Your task to perform on an android device: Play the last video I watched on Youtube Image 0: 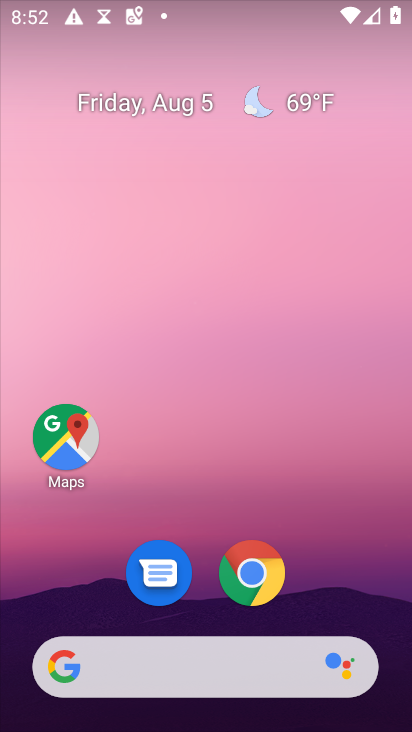
Step 0: drag from (213, 688) to (288, 124)
Your task to perform on an android device: Play the last video I watched on Youtube Image 1: 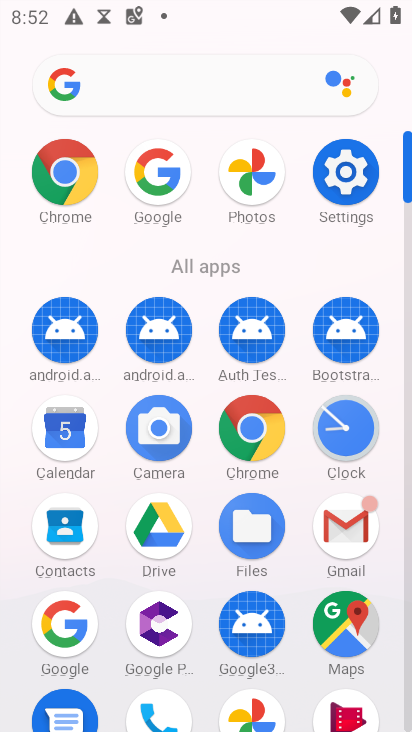
Step 1: drag from (203, 591) to (197, 277)
Your task to perform on an android device: Play the last video I watched on Youtube Image 2: 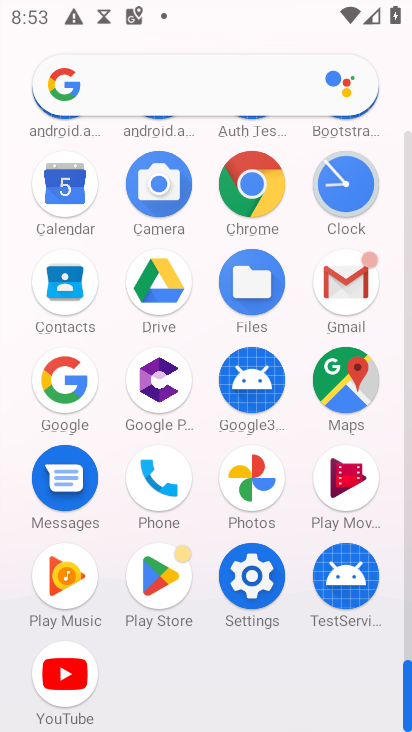
Step 2: click (67, 672)
Your task to perform on an android device: Play the last video I watched on Youtube Image 3: 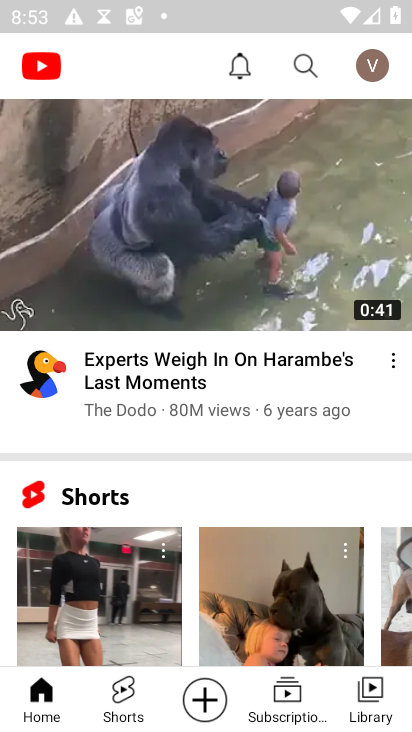
Step 3: click (368, 689)
Your task to perform on an android device: Play the last video I watched on Youtube Image 4: 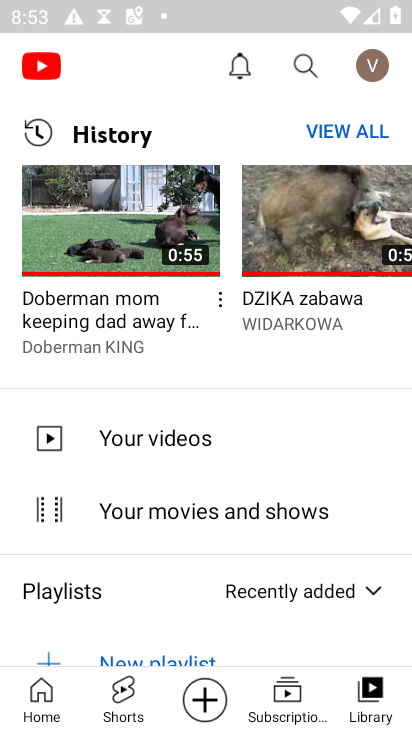
Step 4: click (90, 247)
Your task to perform on an android device: Play the last video I watched on Youtube Image 5: 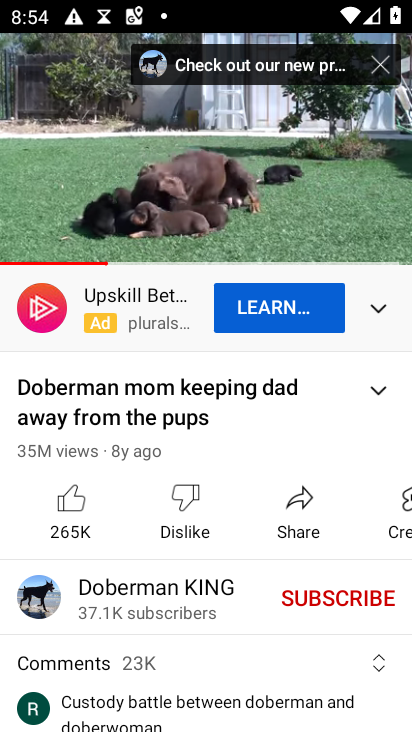
Step 5: click (305, 181)
Your task to perform on an android device: Play the last video I watched on Youtube Image 6: 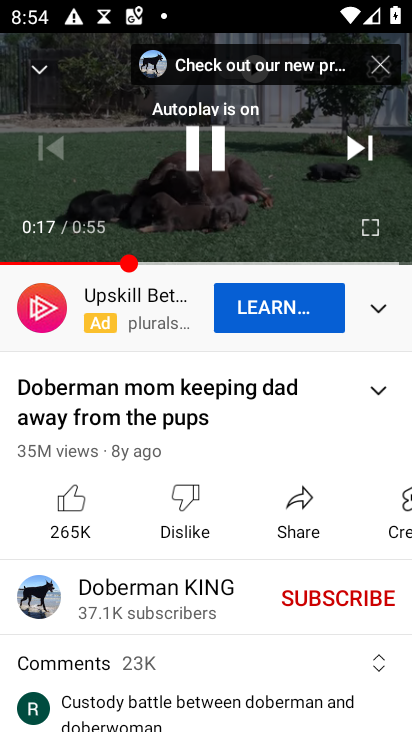
Step 6: click (228, 157)
Your task to perform on an android device: Play the last video I watched on Youtube Image 7: 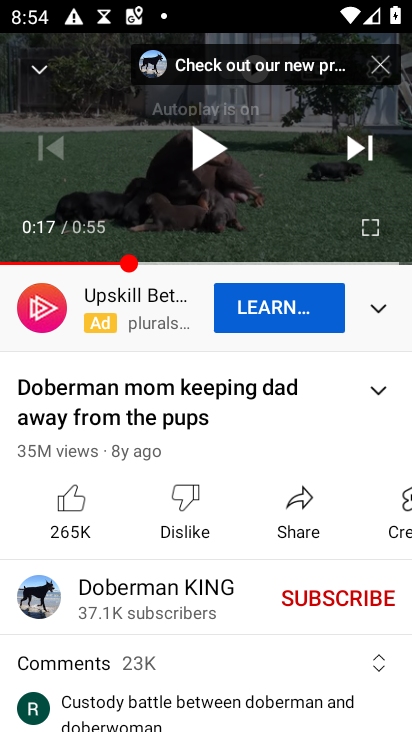
Step 7: task complete